Your task to perform on an android device: Search for sushi restaurants on Maps Image 0: 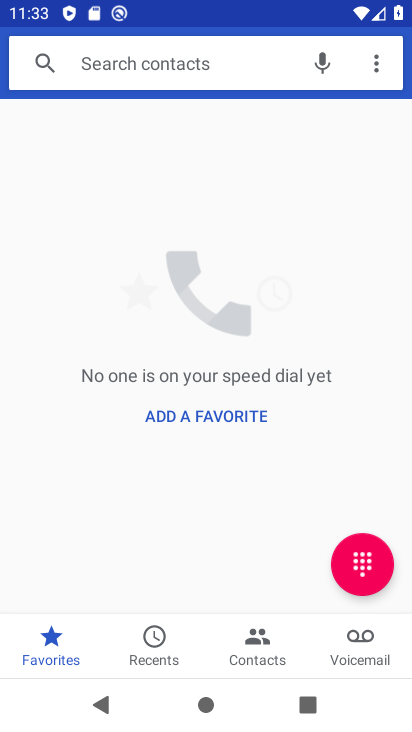
Step 0: press home button
Your task to perform on an android device: Search for sushi restaurants on Maps Image 1: 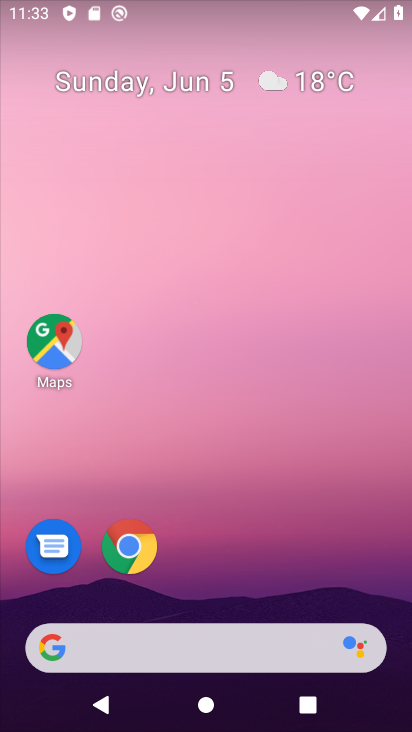
Step 1: click (59, 344)
Your task to perform on an android device: Search for sushi restaurants on Maps Image 2: 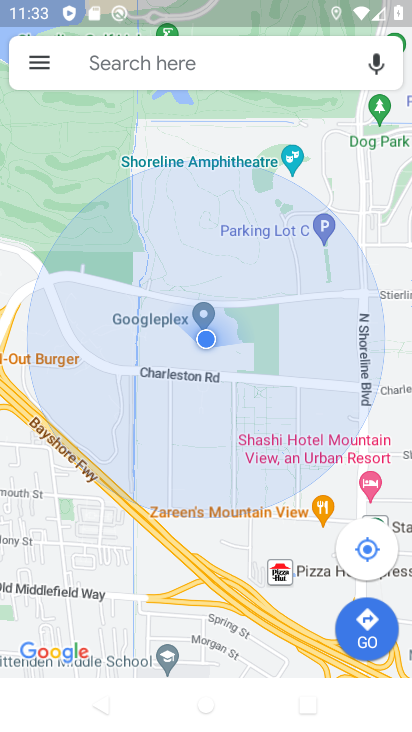
Step 2: click (176, 70)
Your task to perform on an android device: Search for sushi restaurants on Maps Image 3: 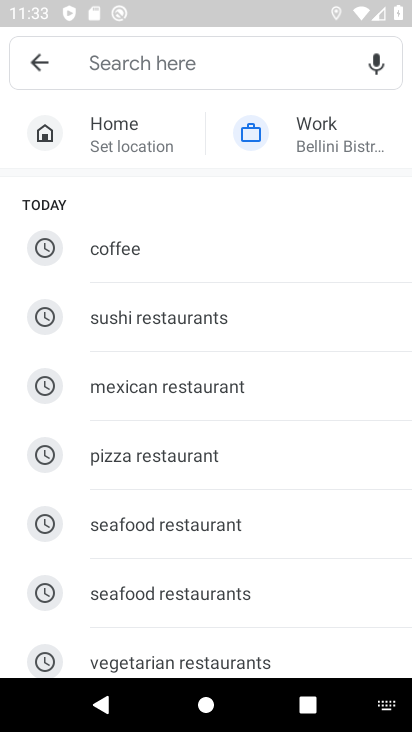
Step 3: click (132, 311)
Your task to perform on an android device: Search for sushi restaurants on Maps Image 4: 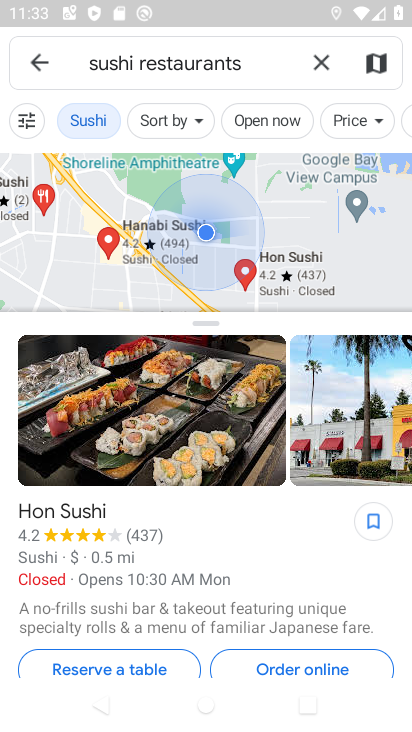
Step 4: task complete